Your task to perform on an android device: check android version Image 0: 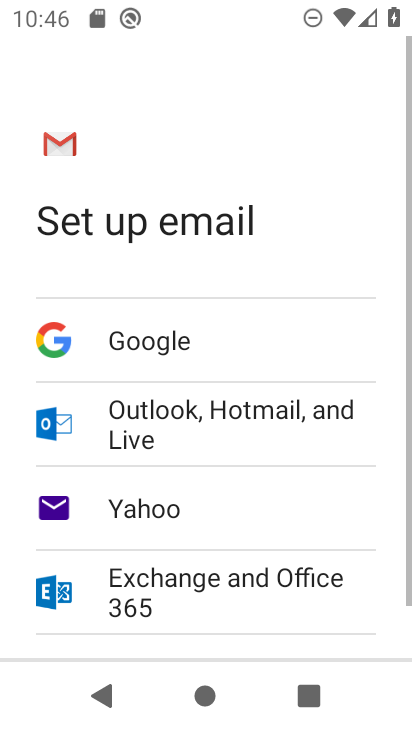
Step 0: press home button
Your task to perform on an android device: check android version Image 1: 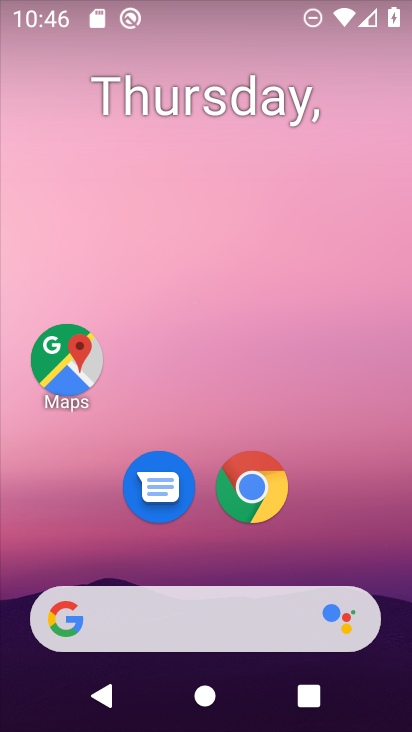
Step 1: drag from (308, 528) to (194, 138)
Your task to perform on an android device: check android version Image 2: 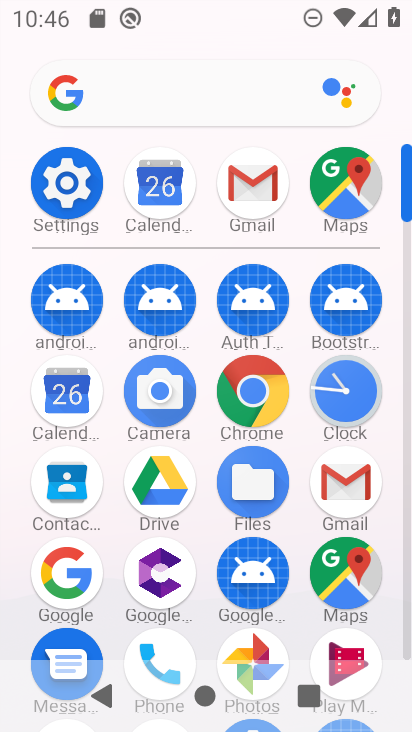
Step 2: click (62, 179)
Your task to perform on an android device: check android version Image 3: 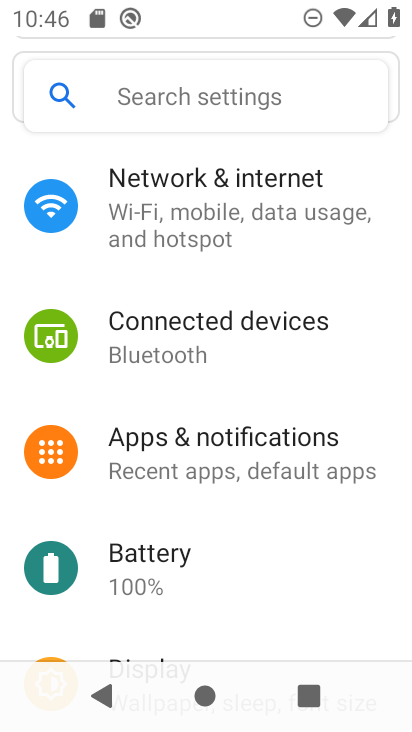
Step 3: drag from (218, 550) to (157, 147)
Your task to perform on an android device: check android version Image 4: 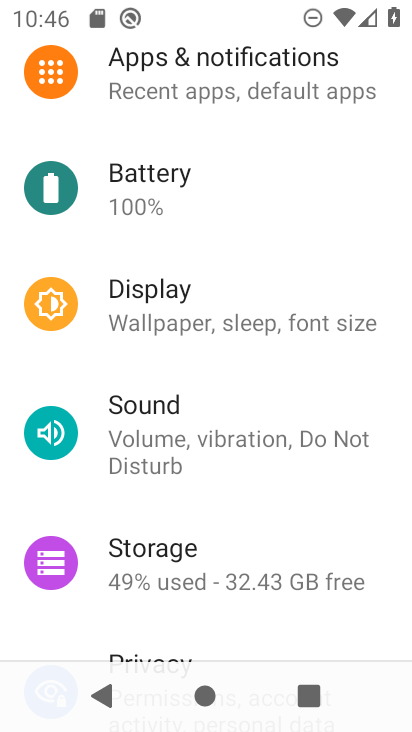
Step 4: drag from (184, 571) to (96, 132)
Your task to perform on an android device: check android version Image 5: 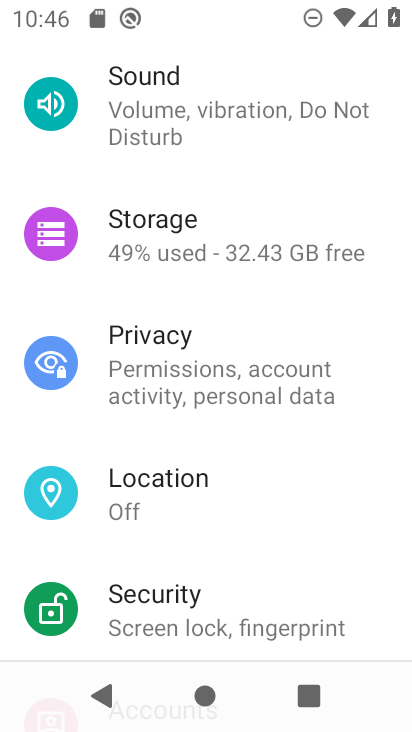
Step 5: drag from (150, 583) to (64, 169)
Your task to perform on an android device: check android version Image 6: 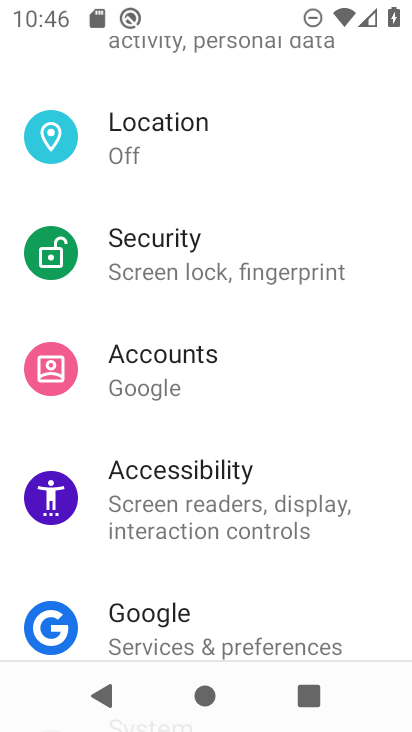
Step 6: drag from (216, 623) to (143, 2)
Your task to perform on an android device: check android version Image 7: 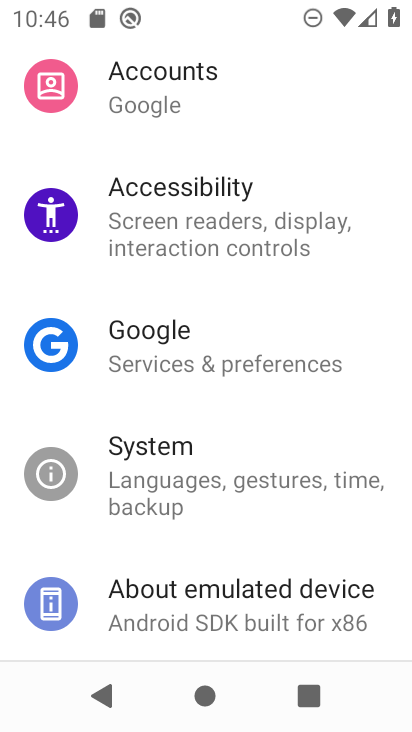
Step 7: click (207, 593)
Your task to perform on an android device: check android version Image 8: 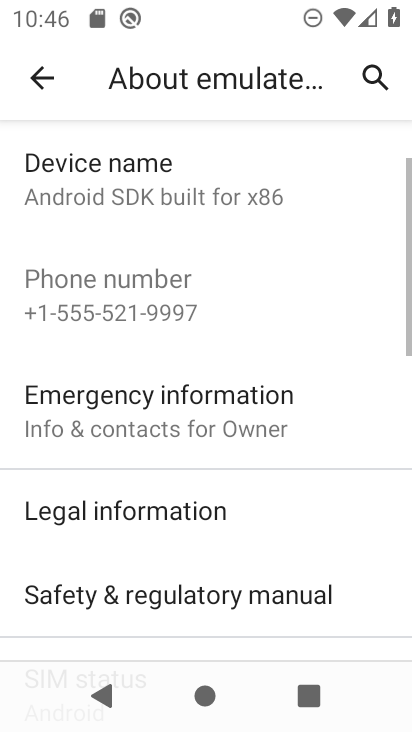
Step 8: drag from (208, 584) to (183, 204)
Your task to perform on an android device: check android version Image 9: 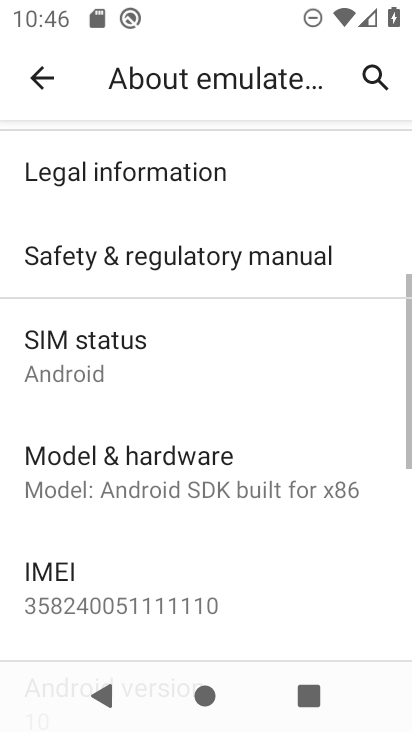
Step 9: drag from (175, 637) to (178, 422)
Your task to perform on an android device: check android version Image 10: 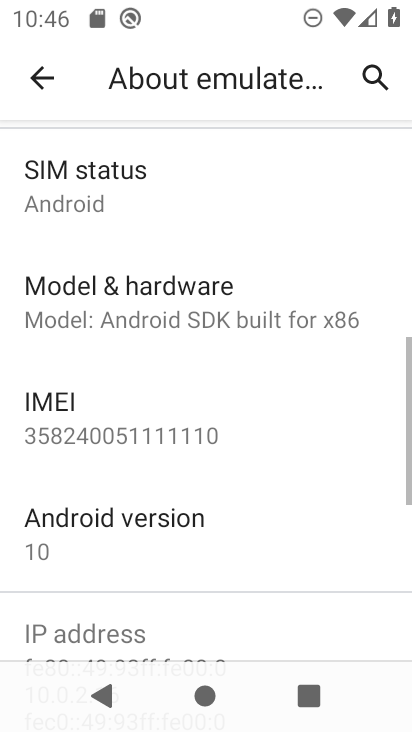
Step 10: click (143, 538)
Your task to perform on an android device: check android version Image 11: 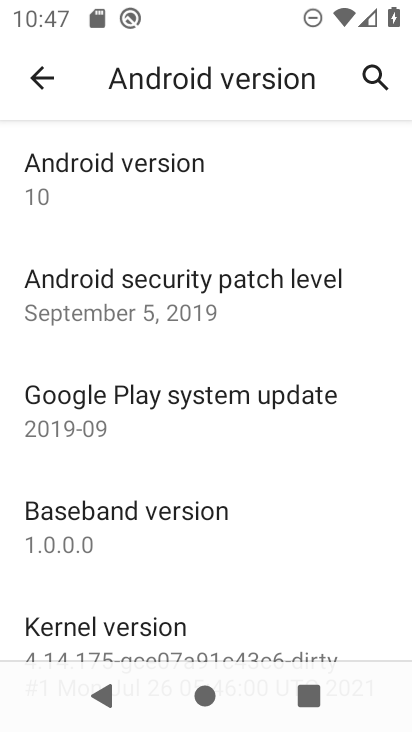
Step 11: task complete